Your task to perform on an android device: Go to calendar. Show me events next week Image 0: 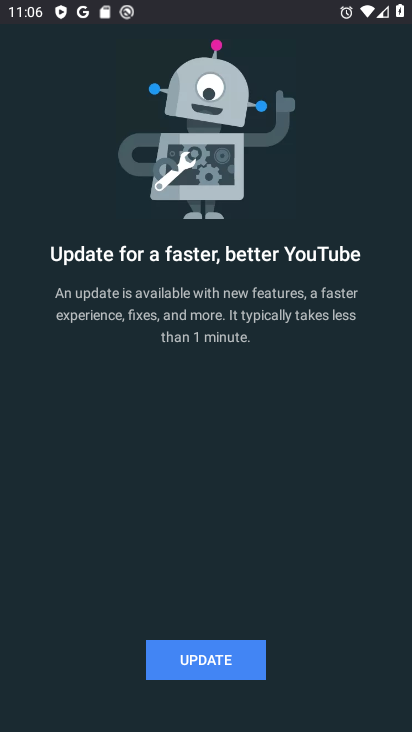
Step 0: press home button
Your task to perform on an android device: Go to calendar. Show me events next week Image 1: 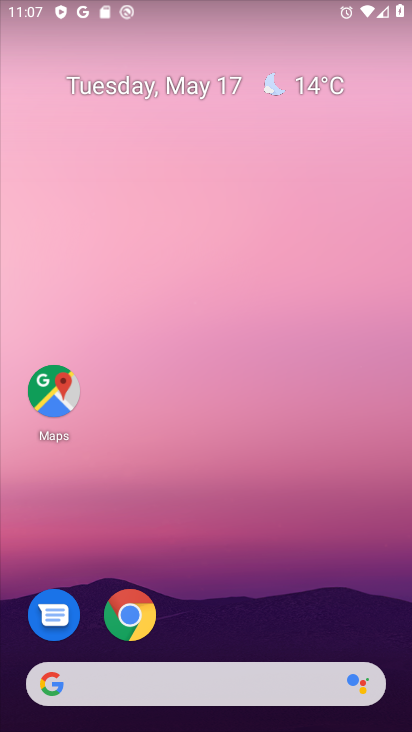
Step 1: drag from (302, 621) to (307, 149)
Your task to perform on an android device: Go to calendar. Show me events next week Image 2: 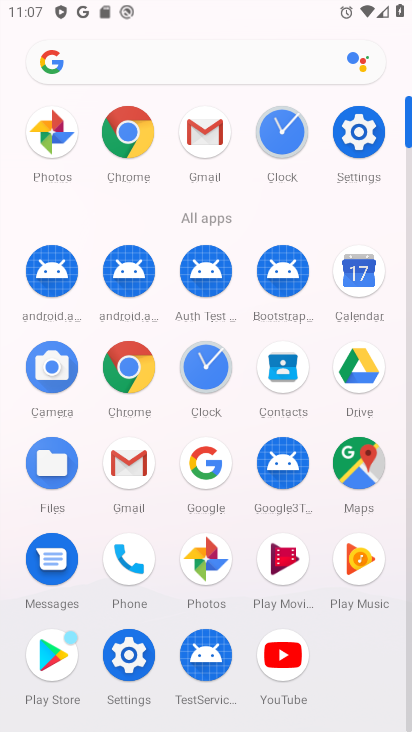
Step 2: click (359, 262)
Your task to perform on an android device: Go to calendar. Show me events next week Image 3: 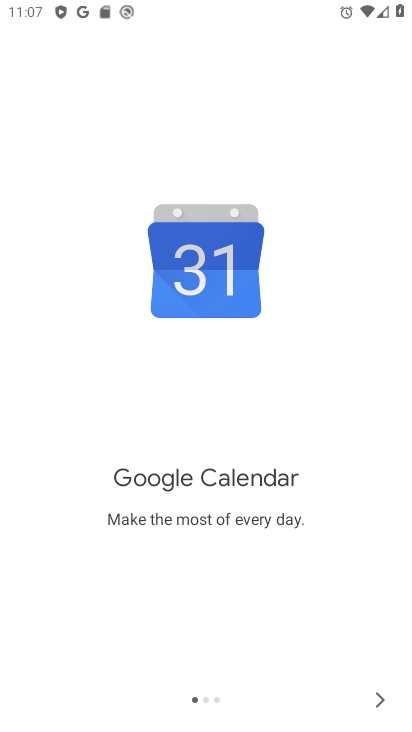
Step 3: click (384, 713)
Your task to perform on an android device: Go to calendar. Show me events next week Image 4: 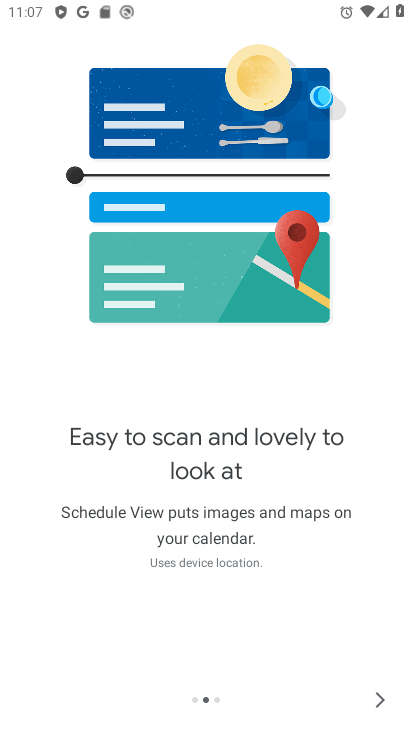
Step 4: click (380, 708)
Your task to perform on an android device: Go to calendar. Show me events next week Image 5: 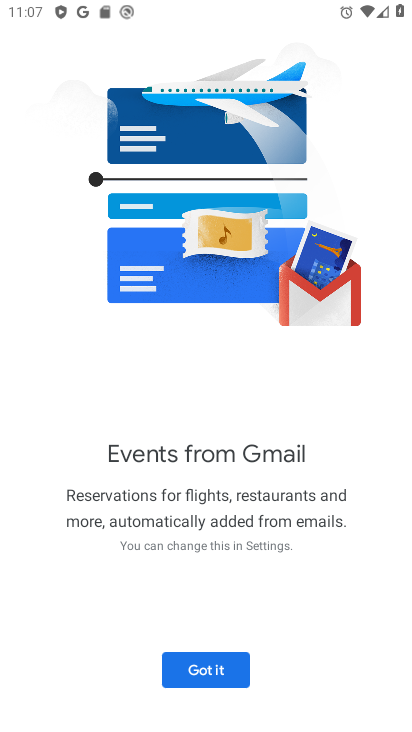
Step 5: click (211, 666)
Your task to perform on an android device: Go to calendar. Show me events next week Image 6: 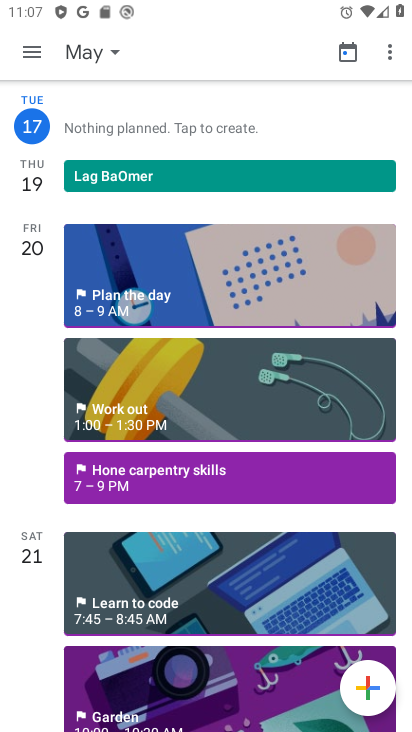
Step 6: click (75, 47)
Your task to perform on an android device: Go to calendar. Show me events next week Image 7: 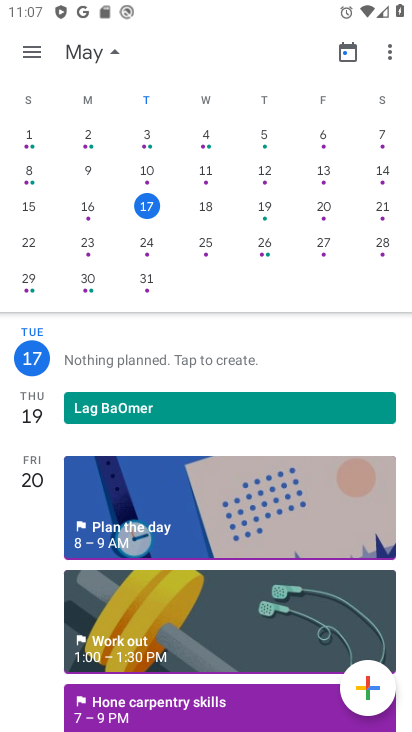
Step 7: click (35, 242)
Your task to perform on an android device: Go to calendar. Show me events next week Image 8: 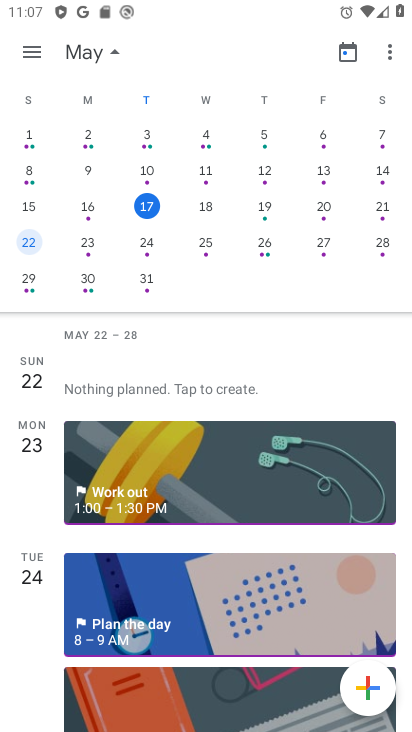
Step 8: click (85, 51)
Your task to perform on an android device: Go to calendar. Show me events next week Image 9: 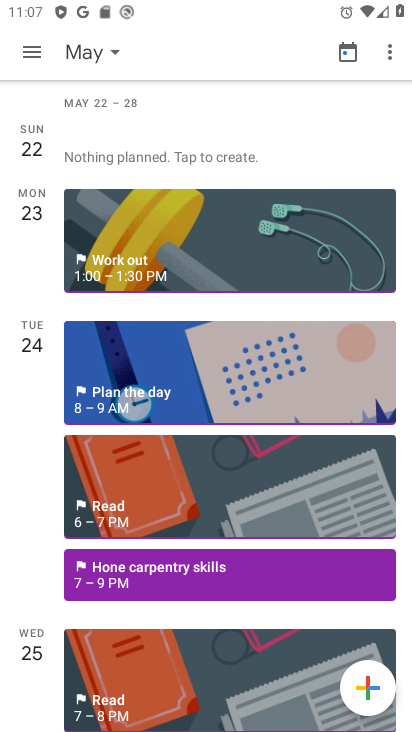
Step 9: click (21, 47)
Your task to perform on an android device: Go to calendar. Show me events next week Image 10: 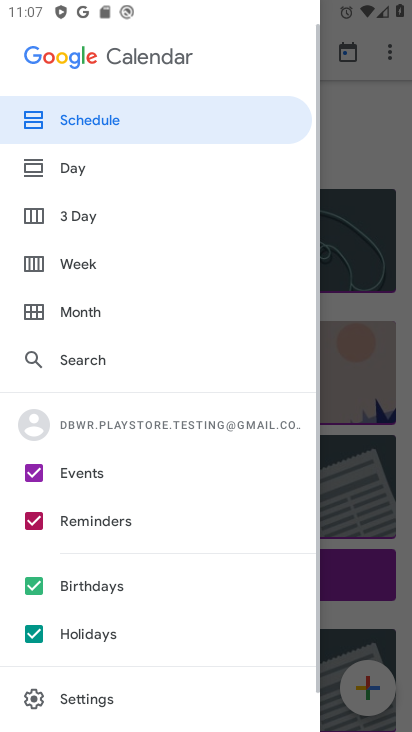
Step 10: click (85, 265)
Your task to perform on an android device: Go to calendar. Show me events next week Image 11: 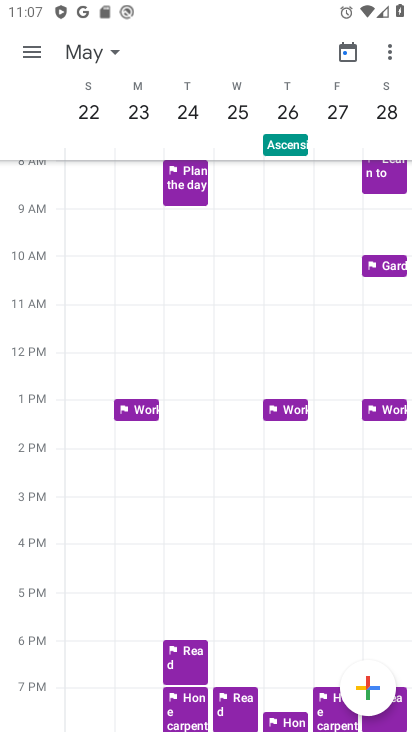
Step 11: task complete